Your task to perform on an android device: Open my contact list Image 0: 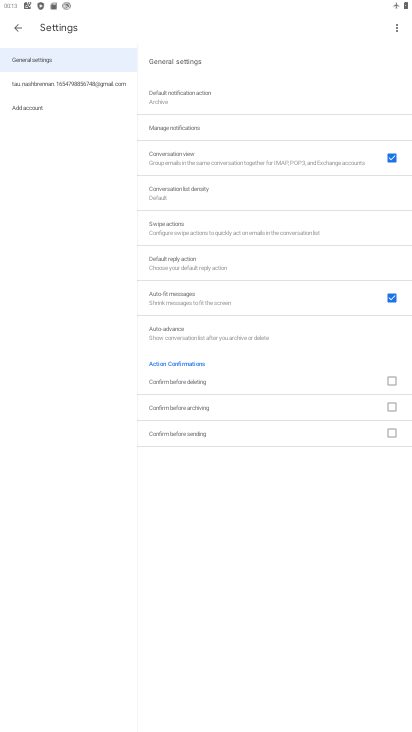
Step 0: press home button
Your task to perform on an android device: Open my contact list Image 1: 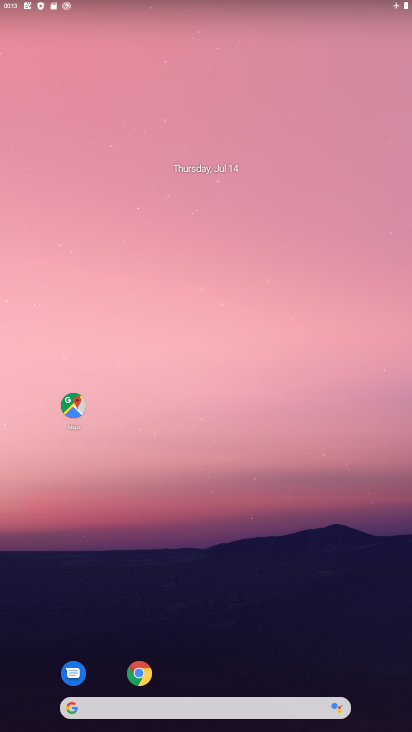
Step 1: drag from (196, 648) to (196, 221)
Your task to perform on an android device: Open my contact list Image 2: 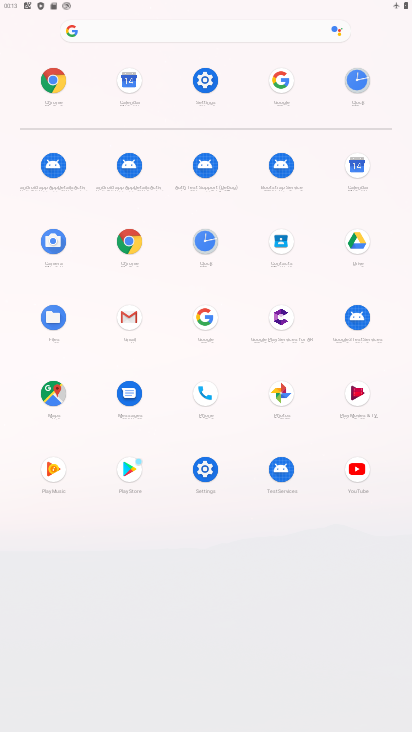
Step 2: click (268, 237)
Your task to perform on an android device: Open my contact list Image 3: 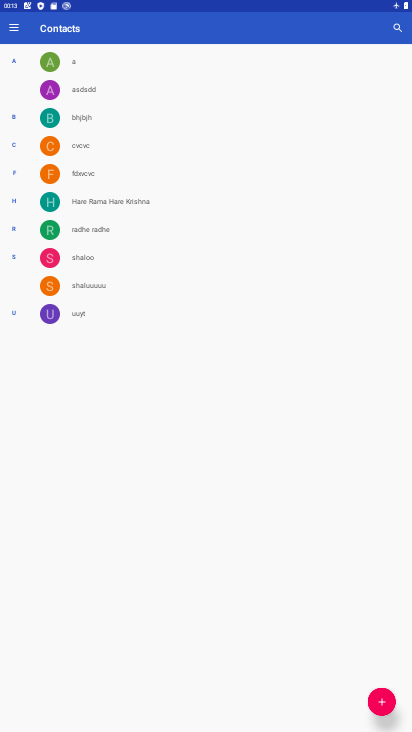
Step 3: task complete